Your task to perform on an android device: What's on my calendar tomorrow? Image 0: 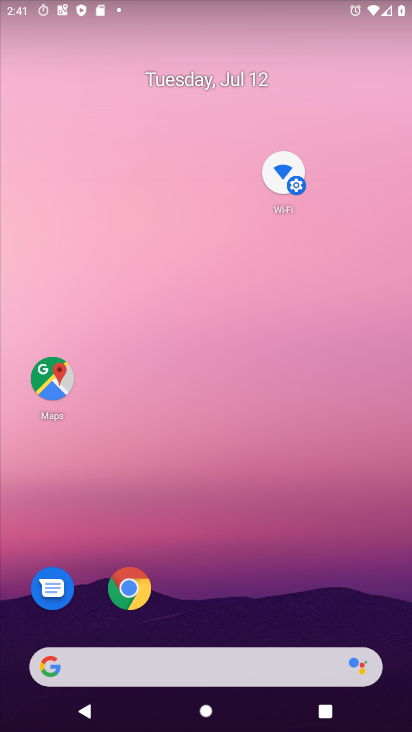
Step 0: drag from (207, 602) to (265, 159)
Your task to perform on an android device: What's on my calendar tomorrow? Image 1: 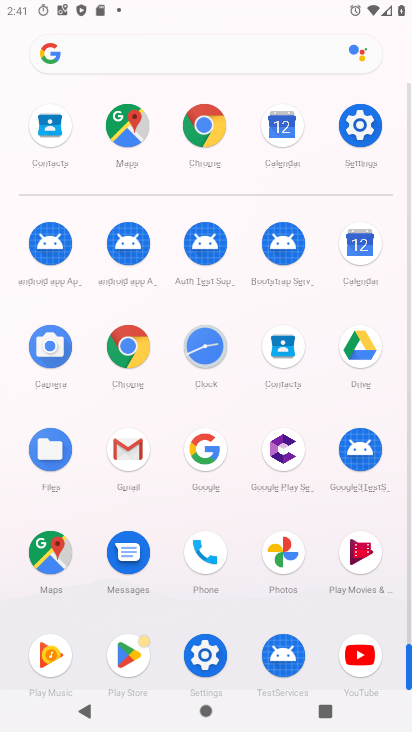
Step 1: click (358, 249)
Your task to perform on an android device: What's on my calendar tomorrow? Image 2: 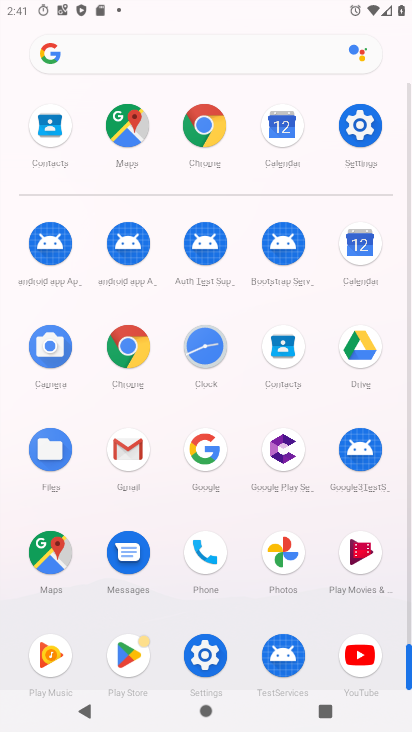
Step 2: click (354, 248)
Your task to perform on an android device: What's on my calendar tomorrow? Image 3: 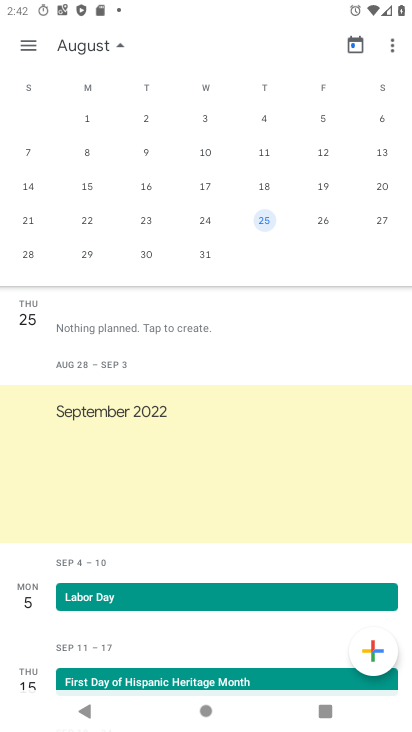
Step 3: drag from (24, 184) to (400, 134)
Your task to perform on an android device: What's on my calendar tomorrow? Image 4: 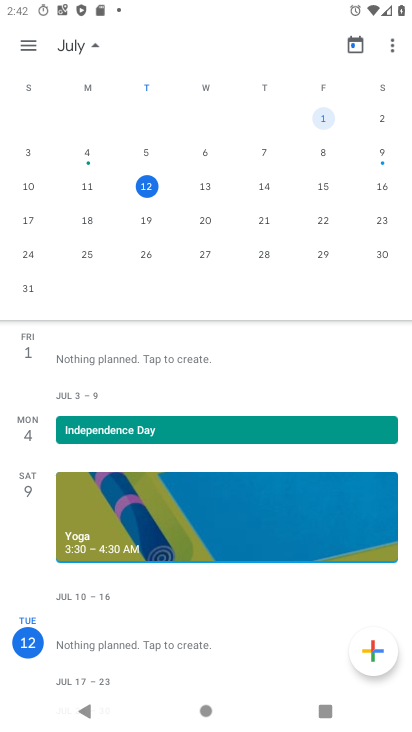
Step 4: click (207, 187)
Your task to perform on an android device: What's on my calendar tomorrow? Image 5: 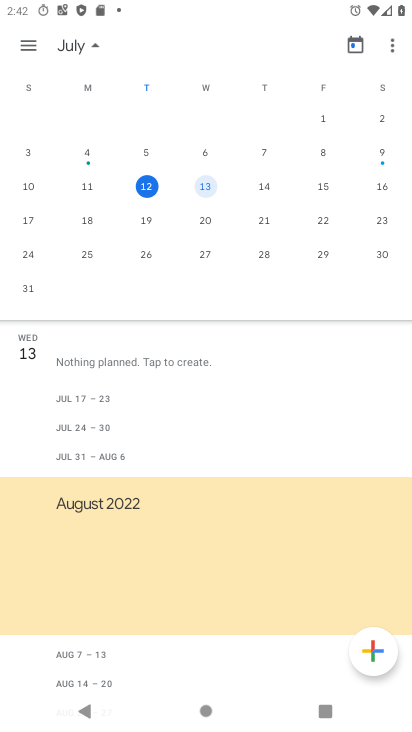
Step 5: task complete